Your task to perform on an android device: toggle location history Image 0: 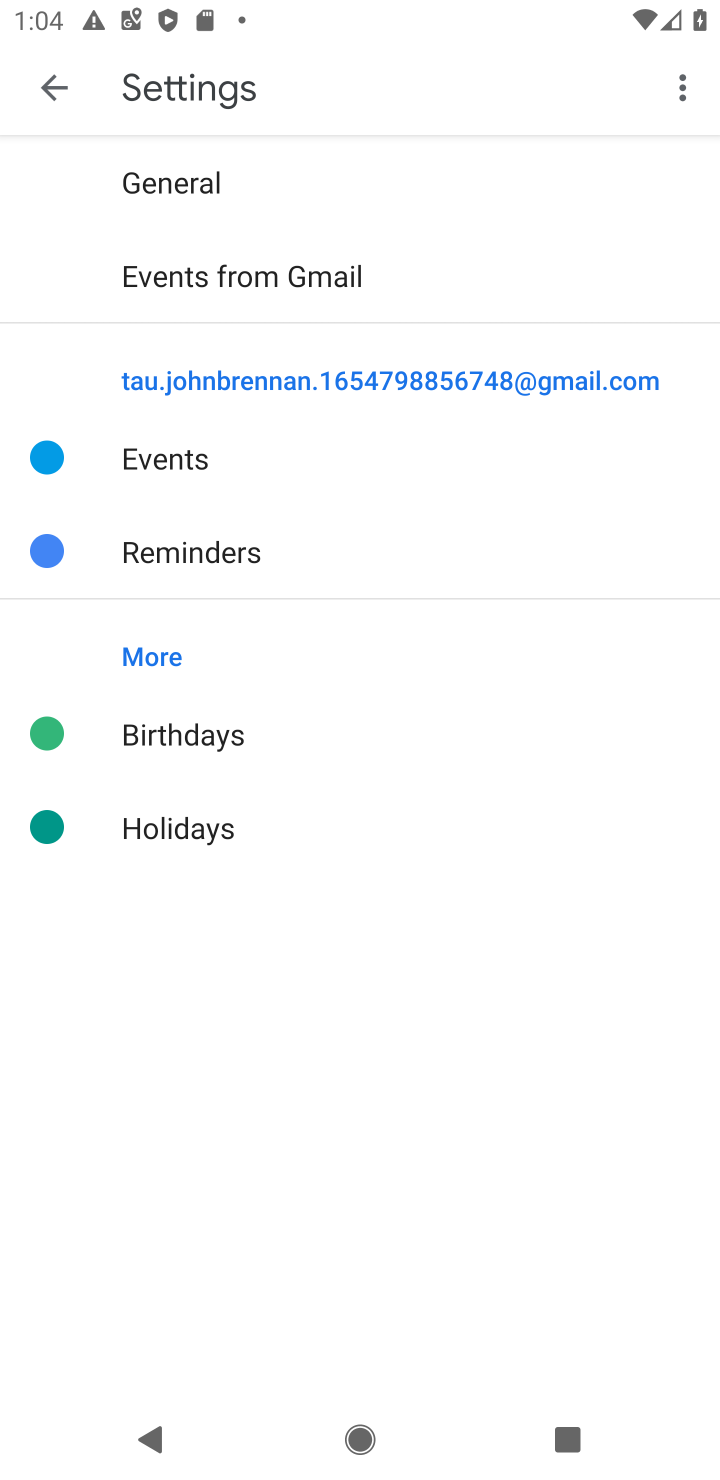
Step 0: press home button
Your task to perform on an android device: toggle location history Image 1: 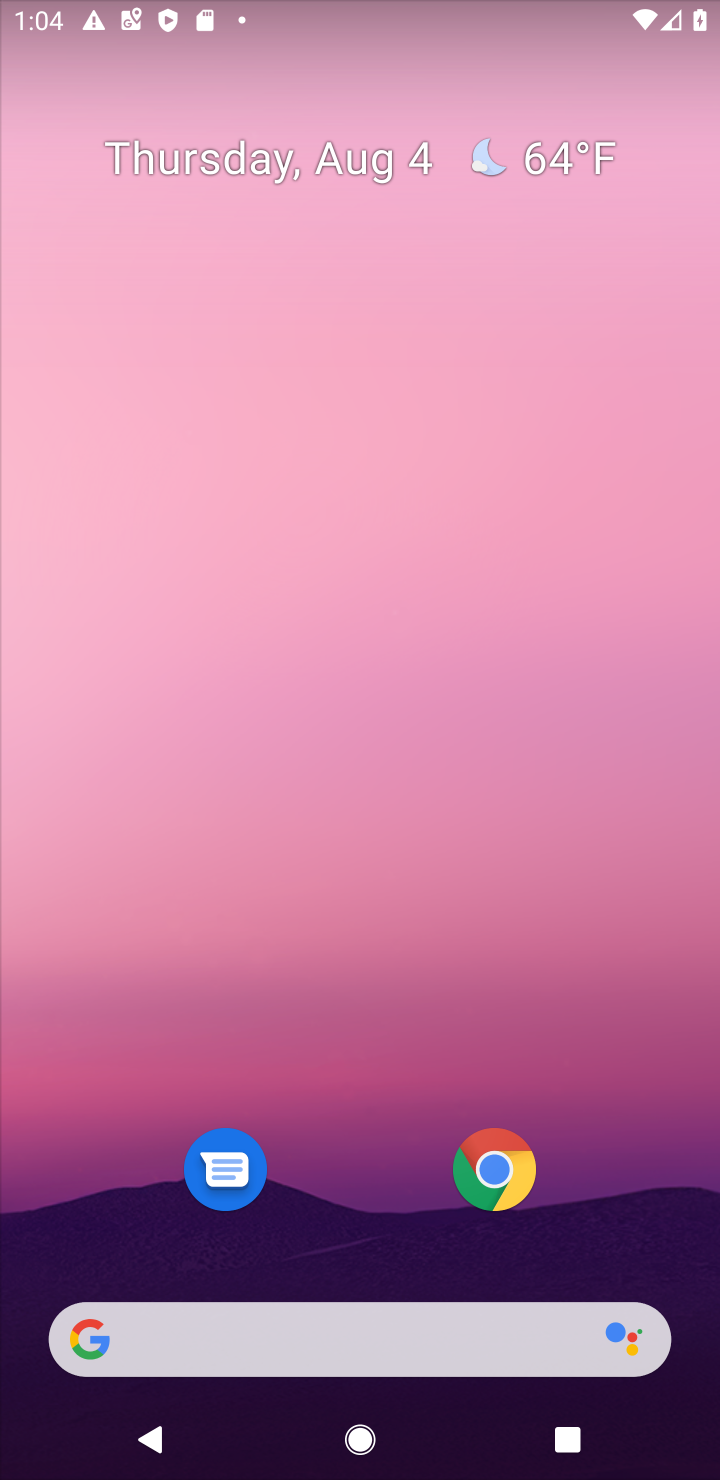
Step 1: drag from (369, 1201) to (343, 4)
Your task to perform on an android device: toggle location history Image 2: 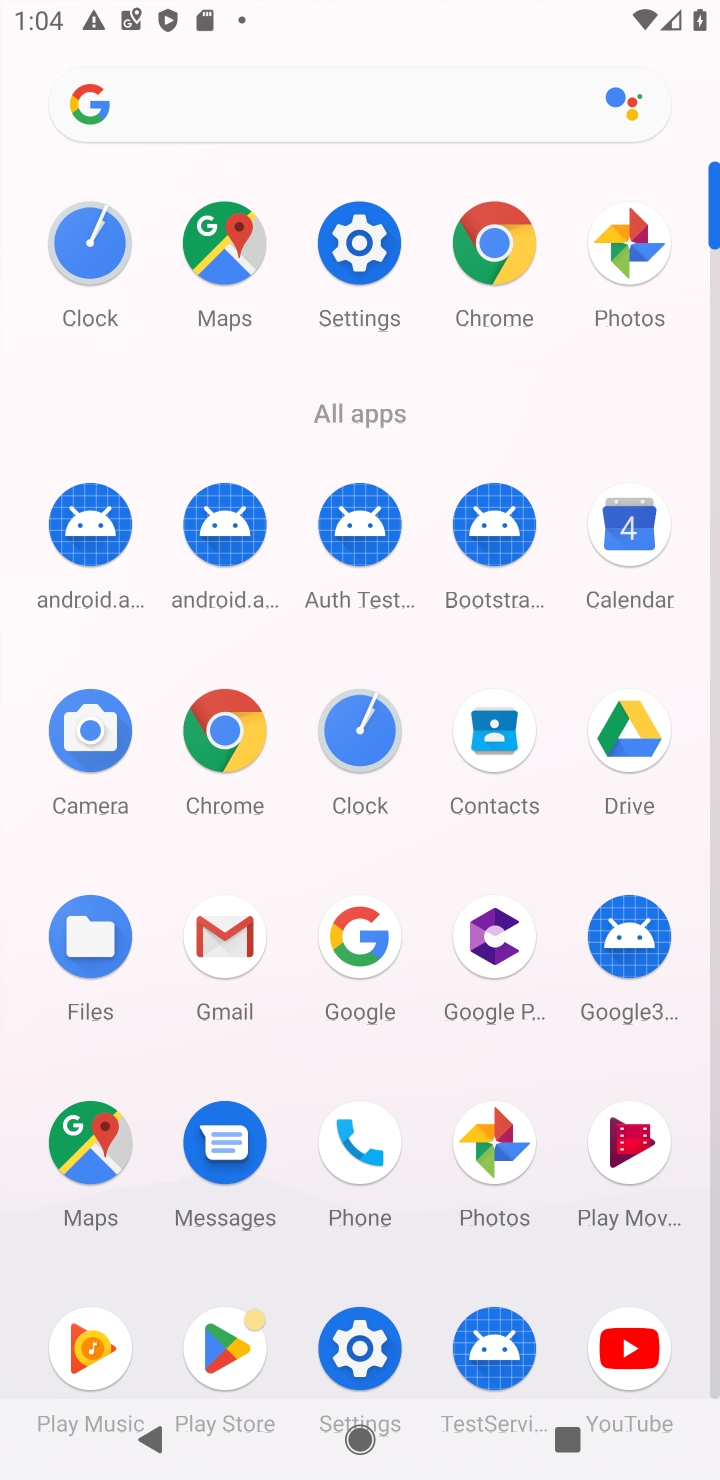
Step 2: click (346, 1353)
Your task to perform on an android device: toggle location history Image 3: 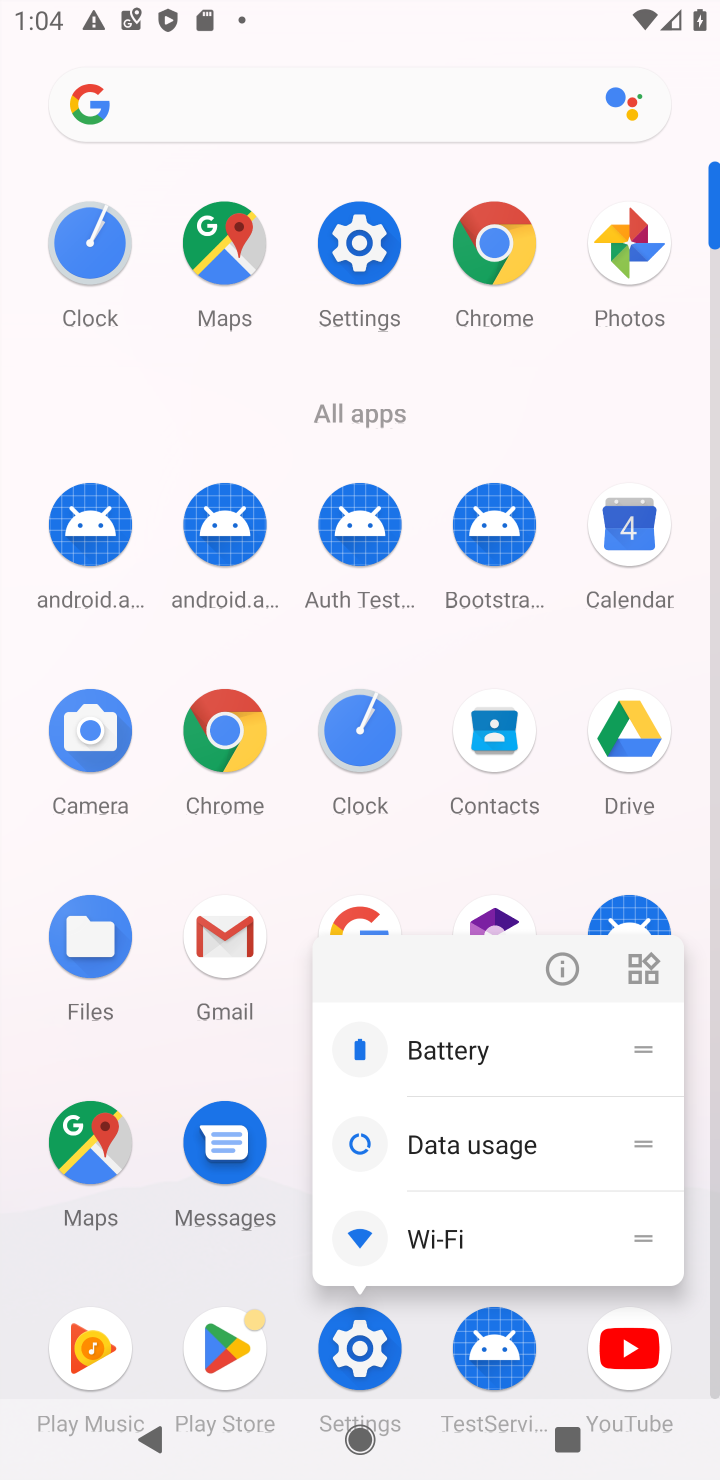
Step 3: click (340, 1321)
Your task to perform on an android device: toggle location history Image 4: 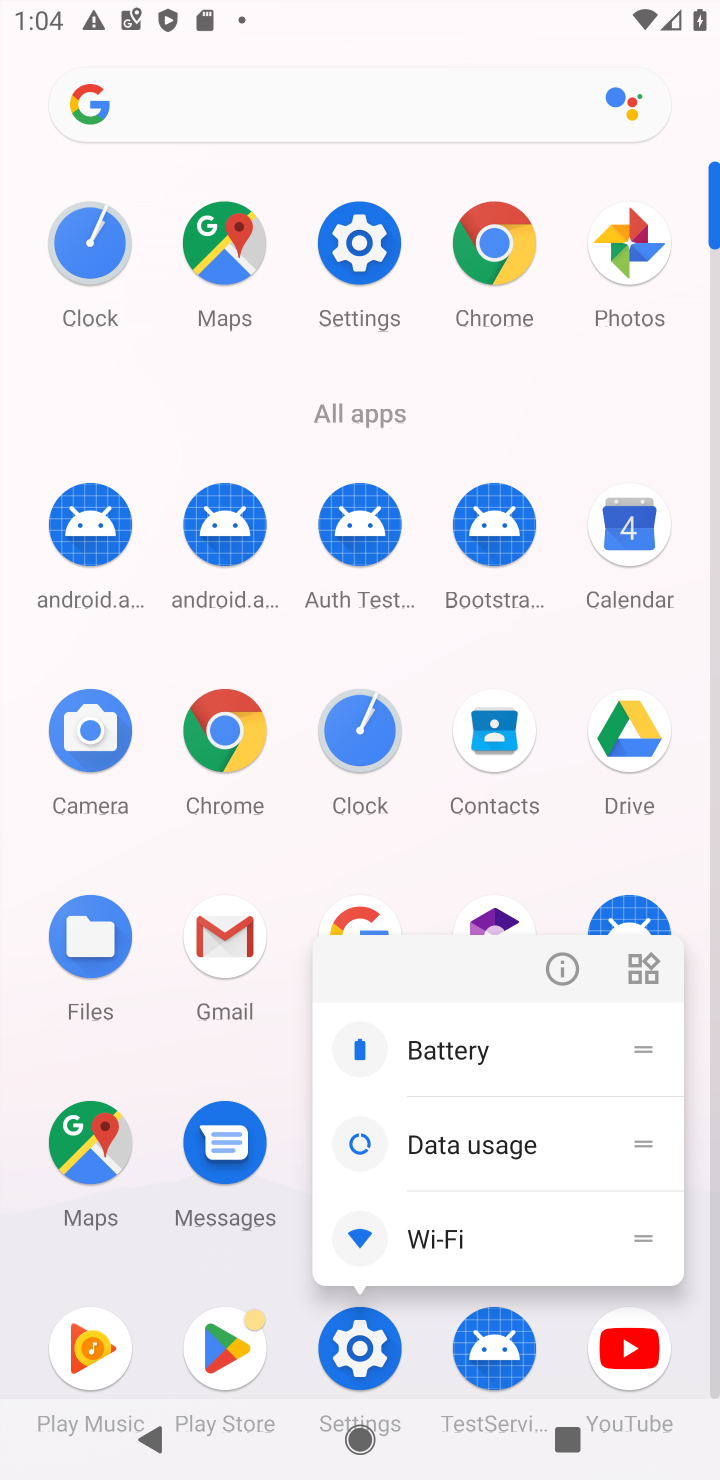
Step 4: click (344, 1346)
Your task to perform on an android device: toggle location history Image 5: 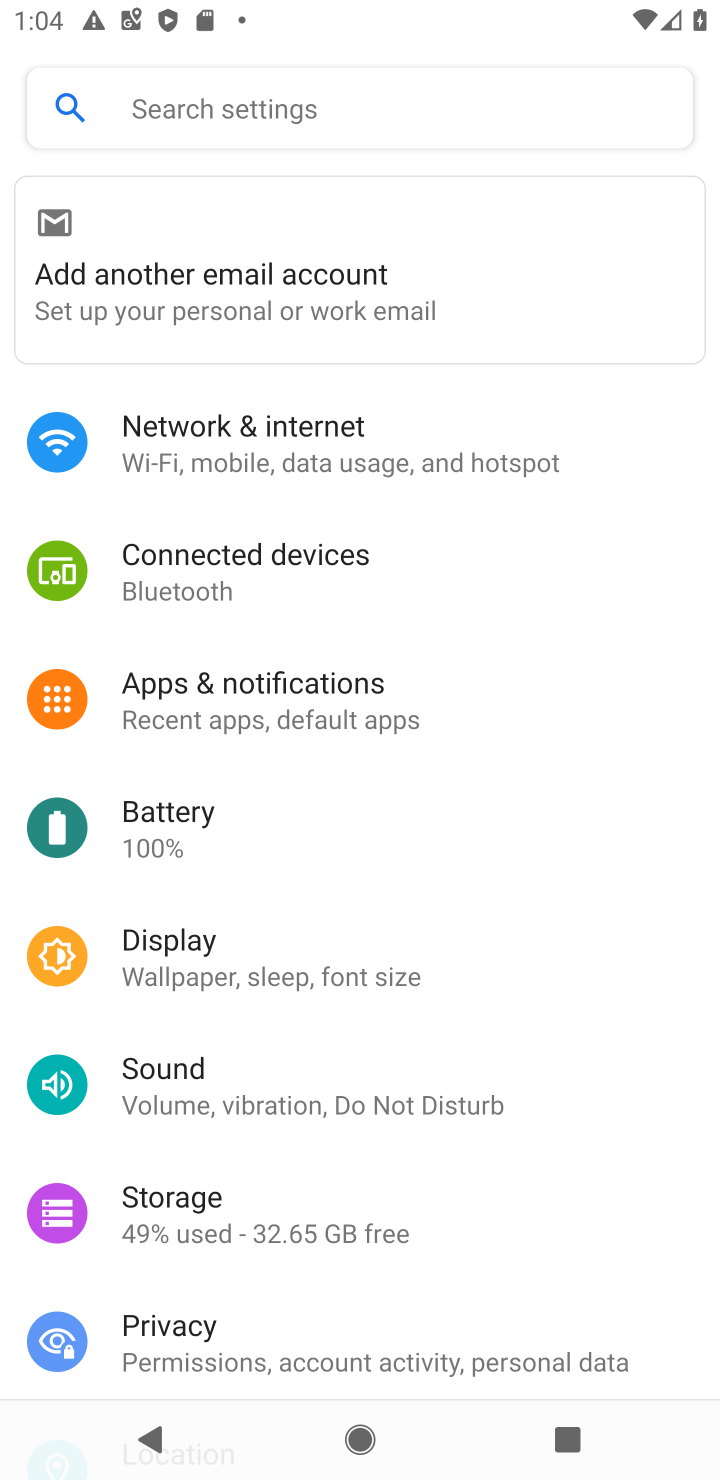
Step 5: drag from (239, 1299) to (235, 1150)
Your task to perform on an android device: toggle location history Image 6: 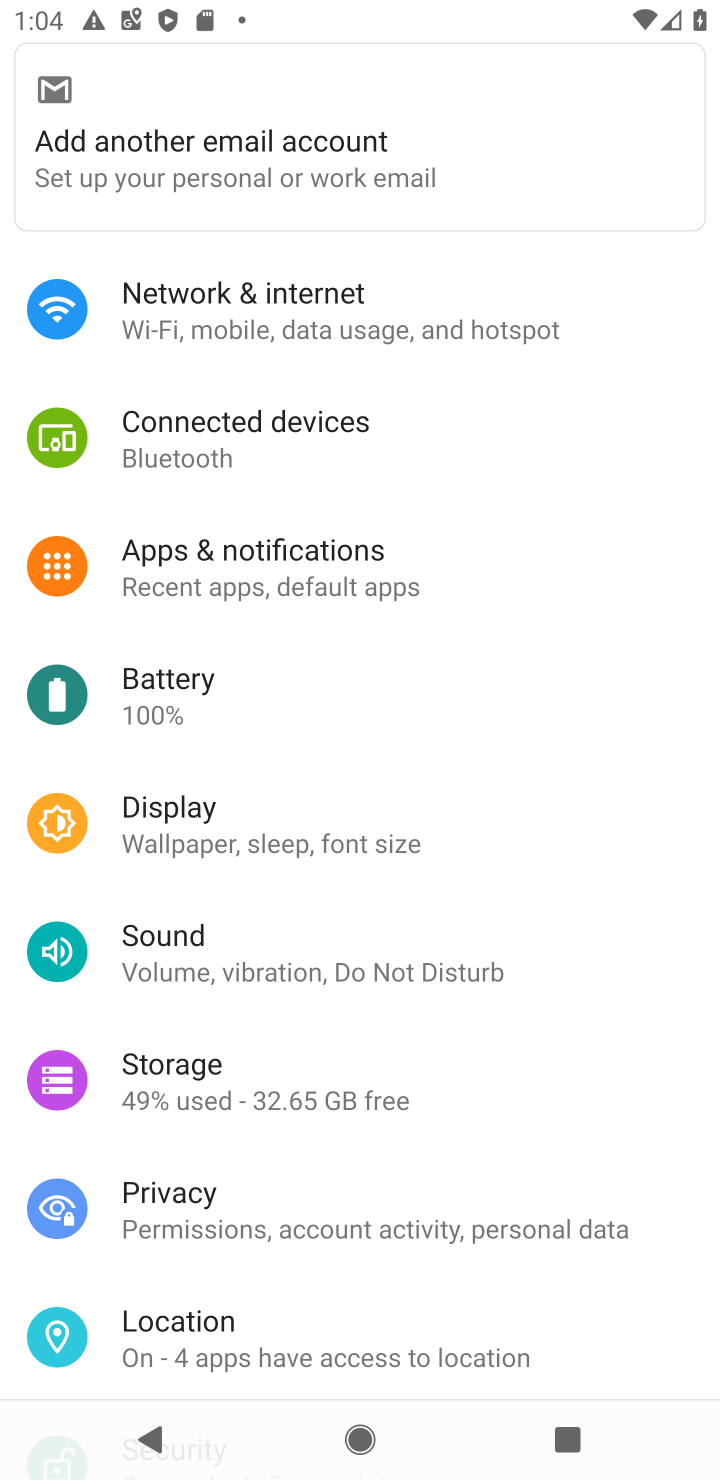
Step 6: click (190, 1322)
Your task to perform on an android device: toggle location history Image 7: 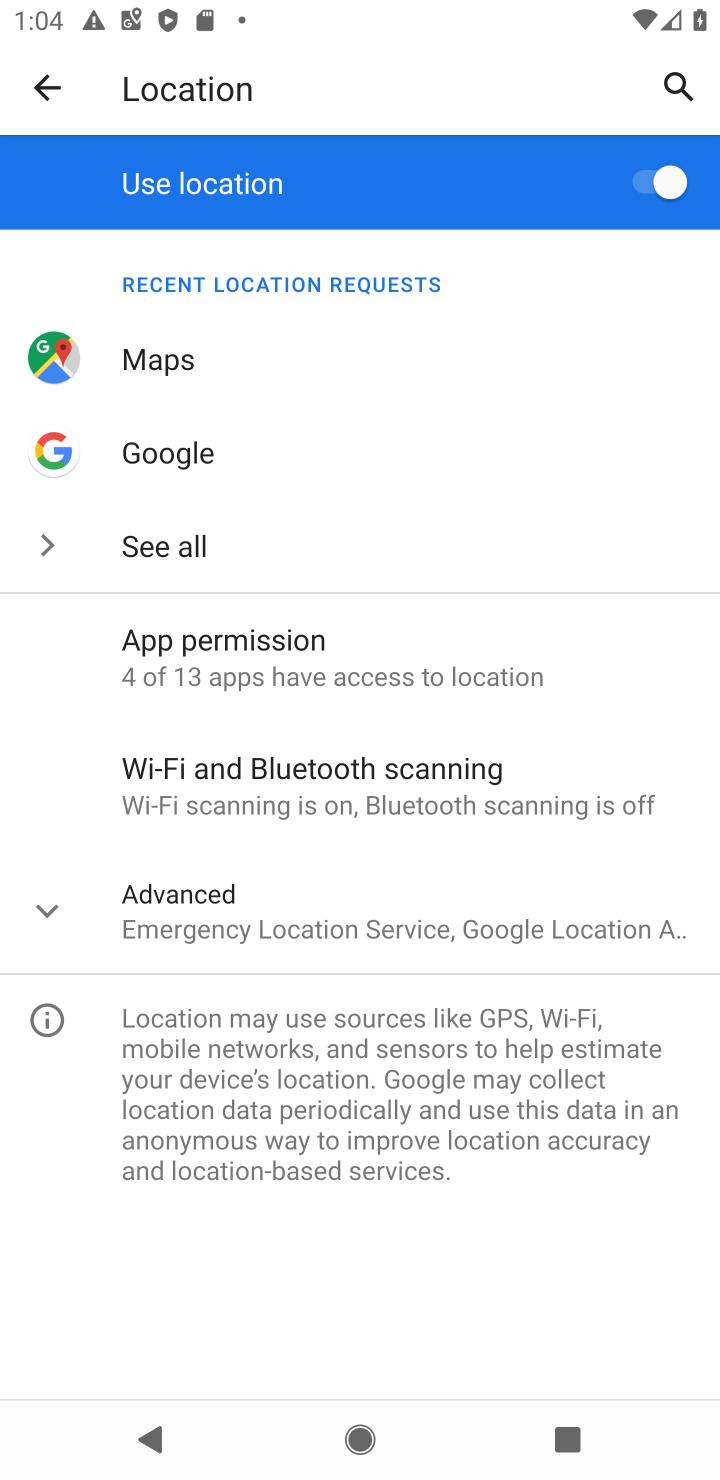
Step 7: click (269, 909)
Your task to perform on an android device: toggle location history Image 8: 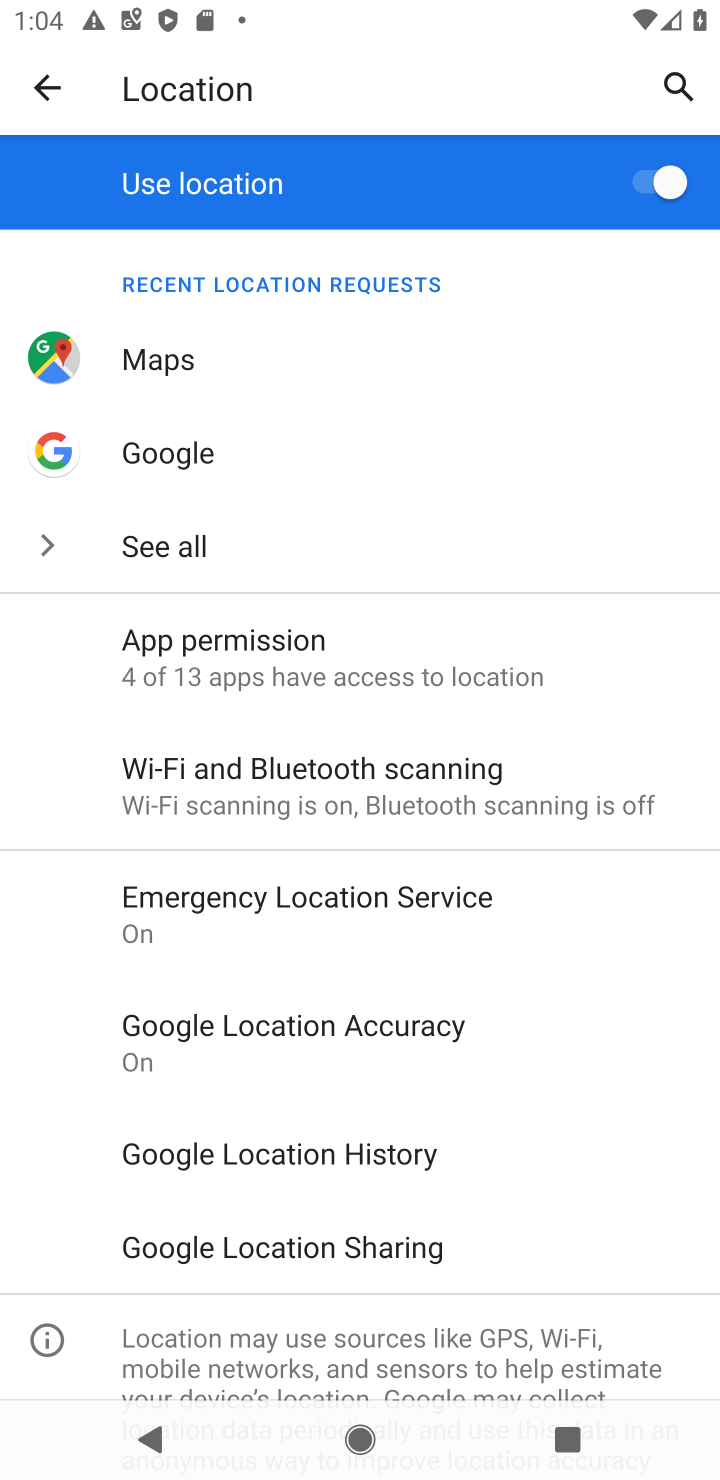
Step 8: click (298, 1140)
Your task to perform on an android device: toggle location history Image 9: 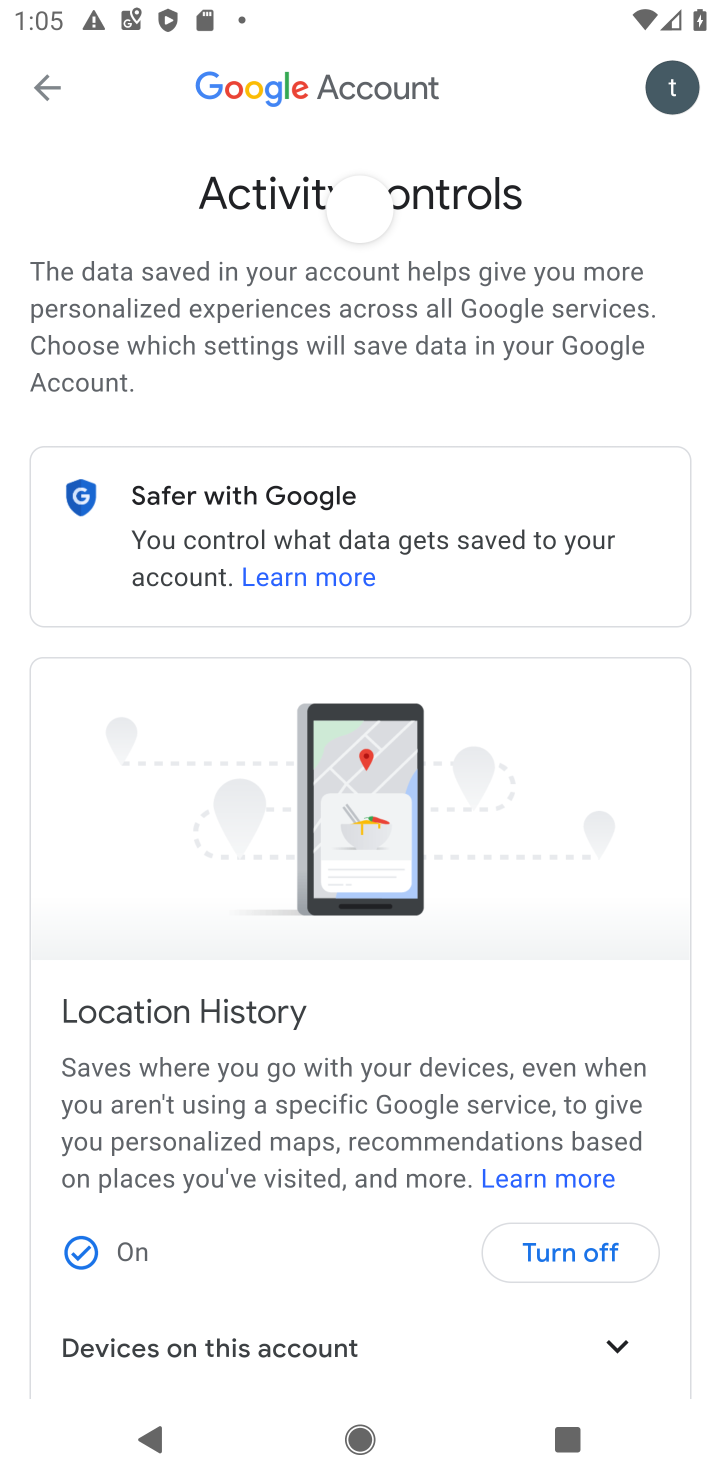
Step 9: click (574, 1260)
Your task to perform on an android device: toggle location history Image 10: 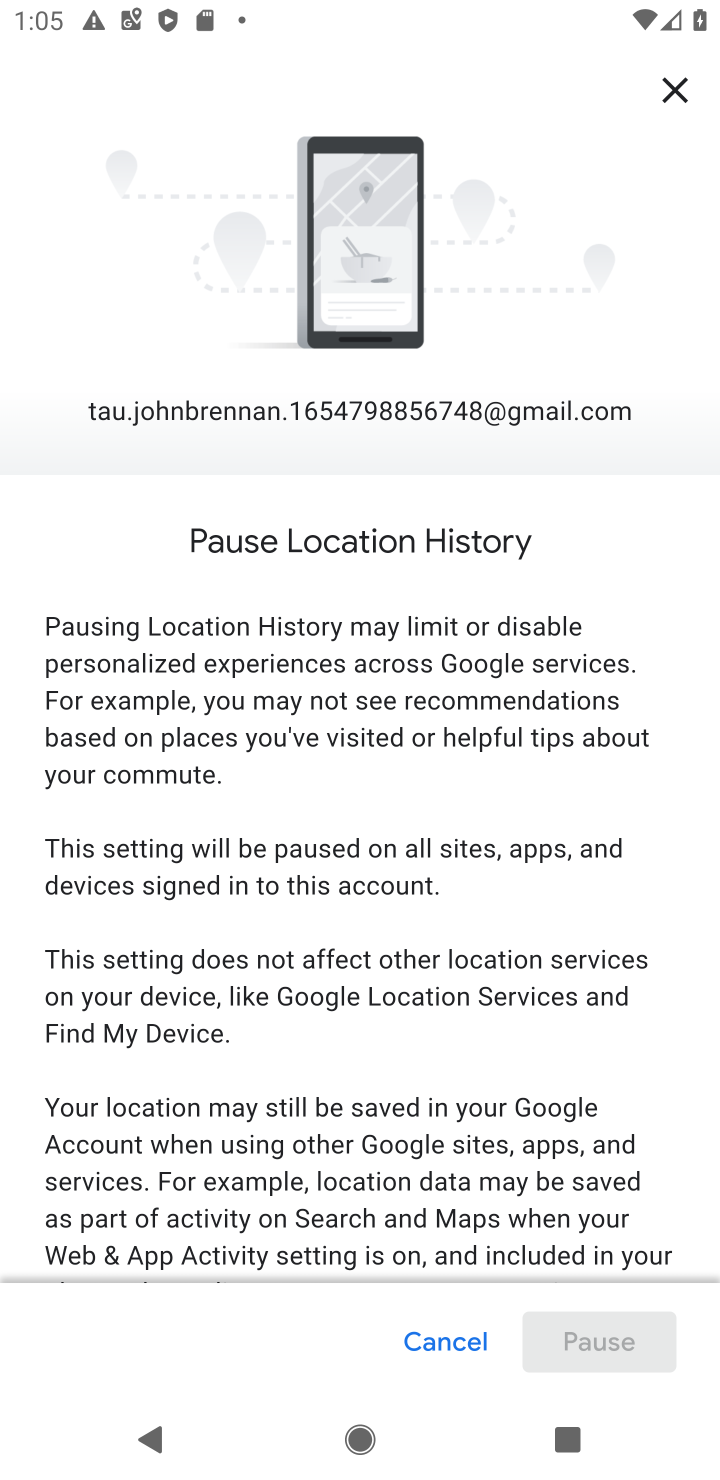
Step 10: drag from (449, 1128) to (487, 436)
Your task to perform on an android device: toggle location history Image 11: 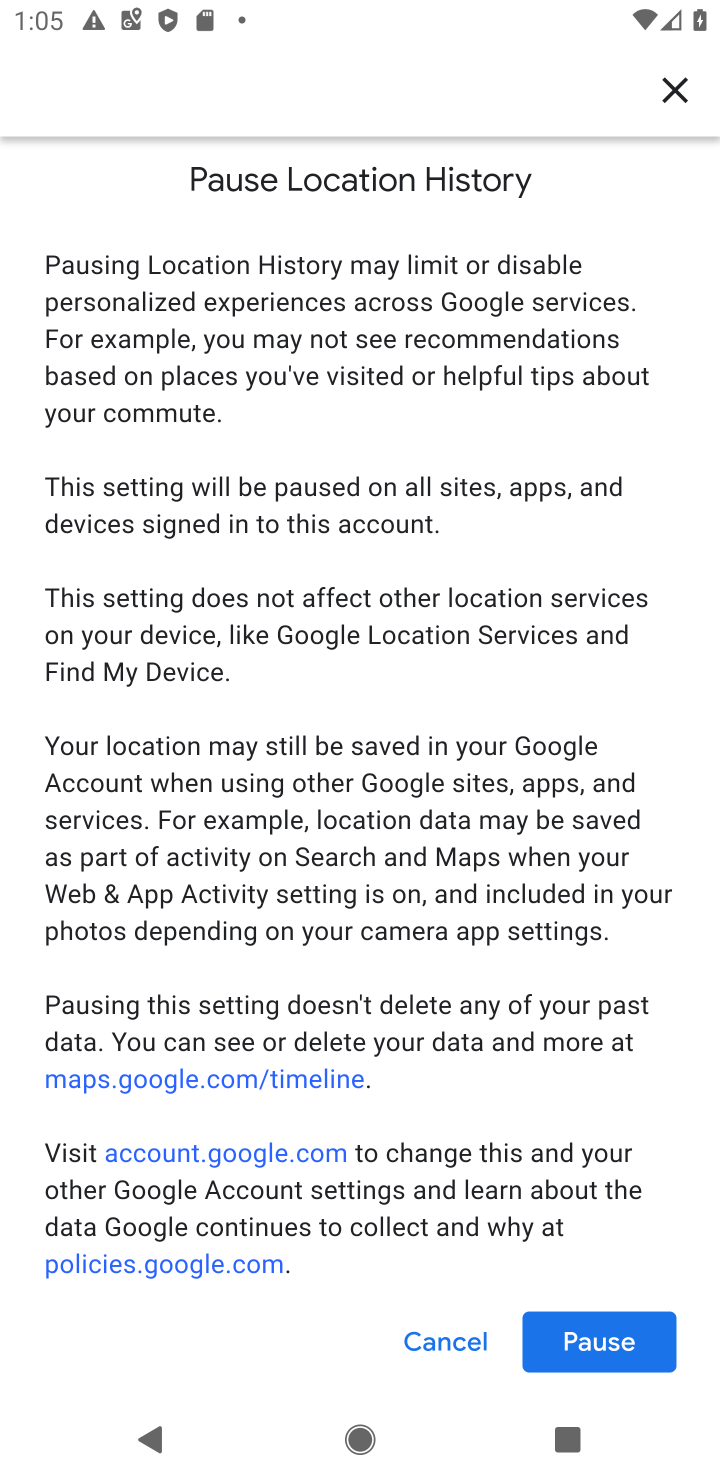
Step 11: drag from (520, 1250) to (482, 270)
Your task to perform on an android device: toggle location history Image 12: 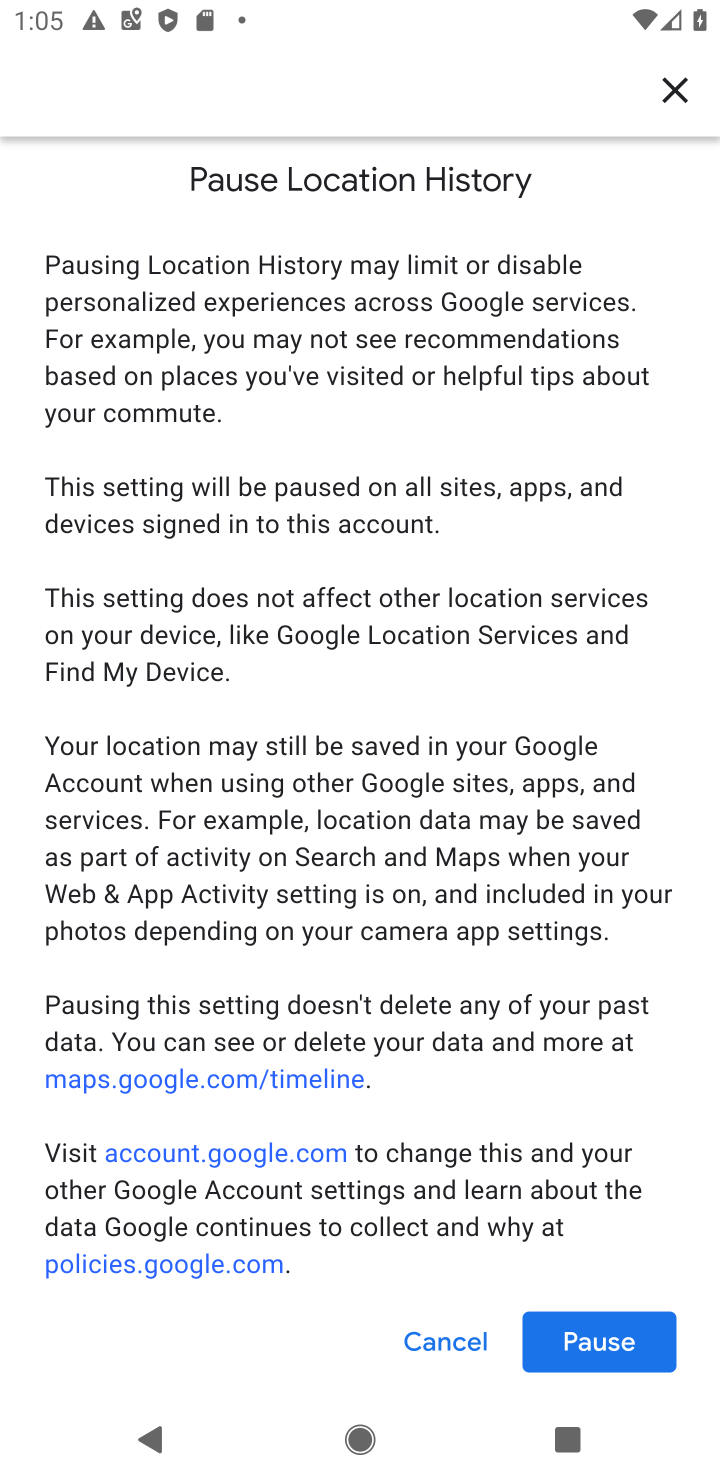
Step 12: click (594, 1339)
Your task to perform on an android device: toggle location history Image 13: 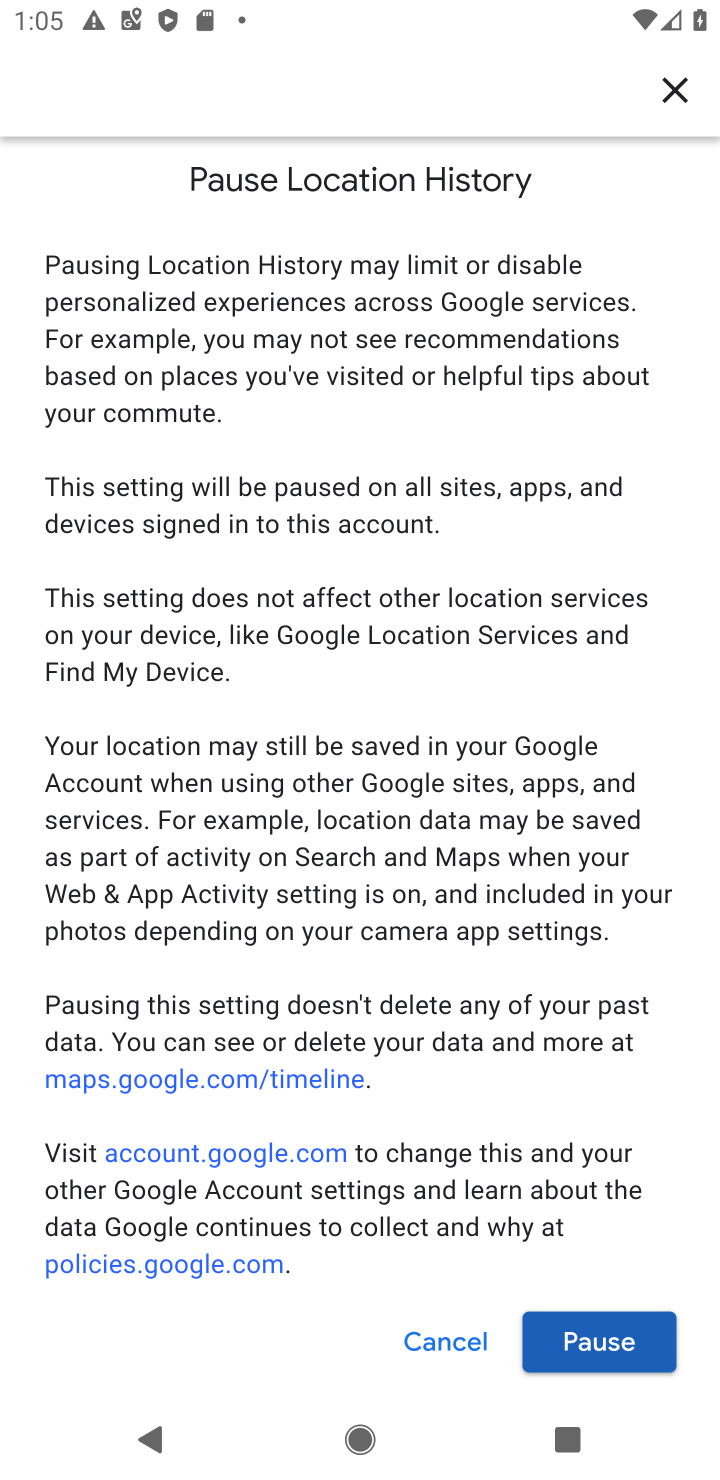
Step 13: click (595, 1342)
Your task to perform on an android device: toggle location history Image 14: 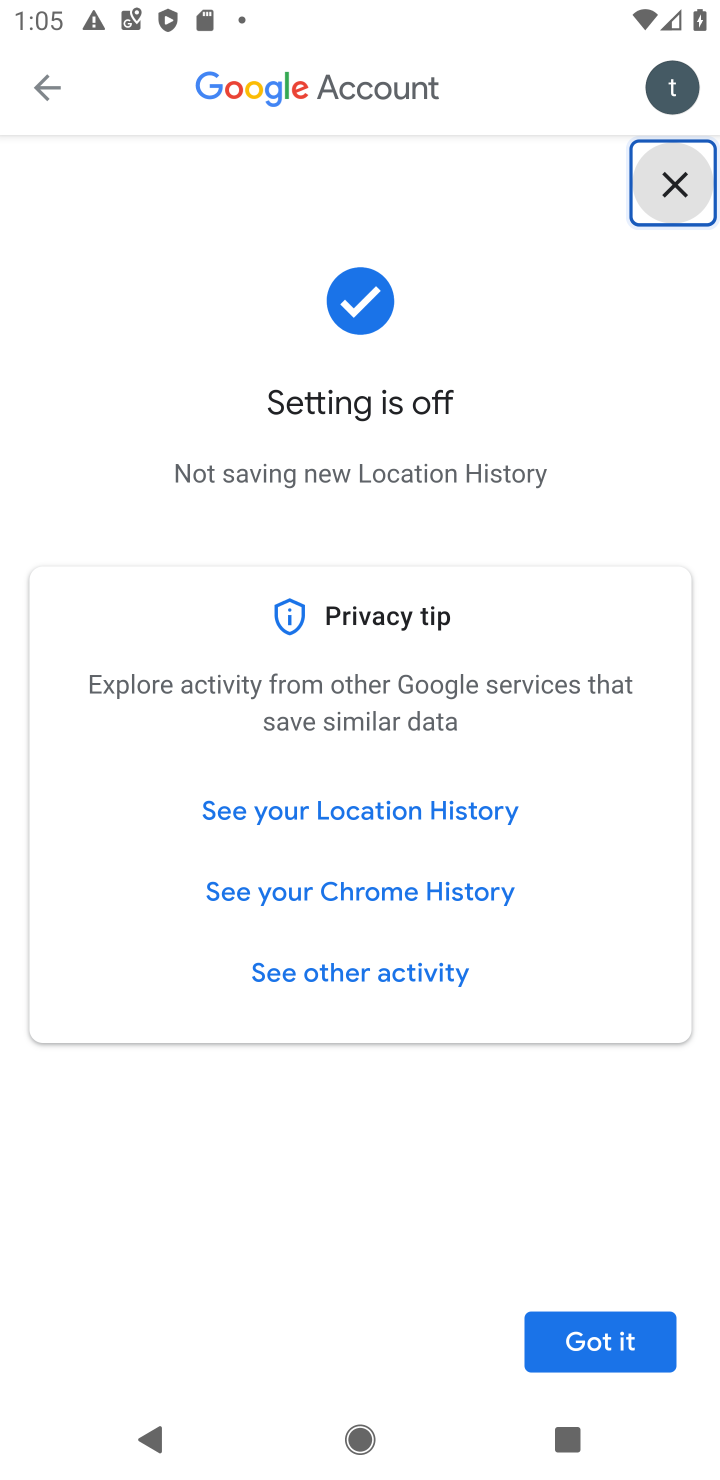
Step 14: click (595, 1342)
Your task to perform on an android device: toggle location history Image 15: 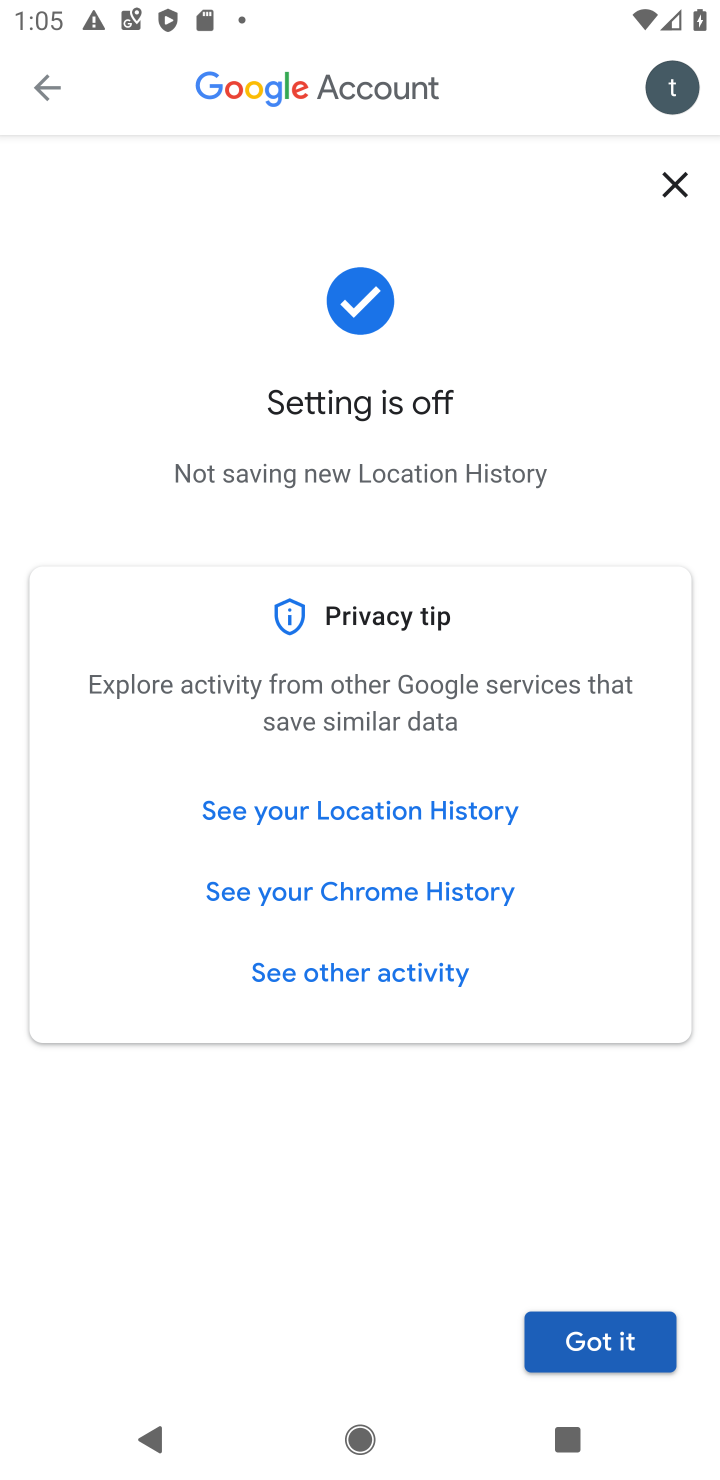
Step 15: click (595, 1342)
Your task to perform on an android device: toggle location history Image 16: 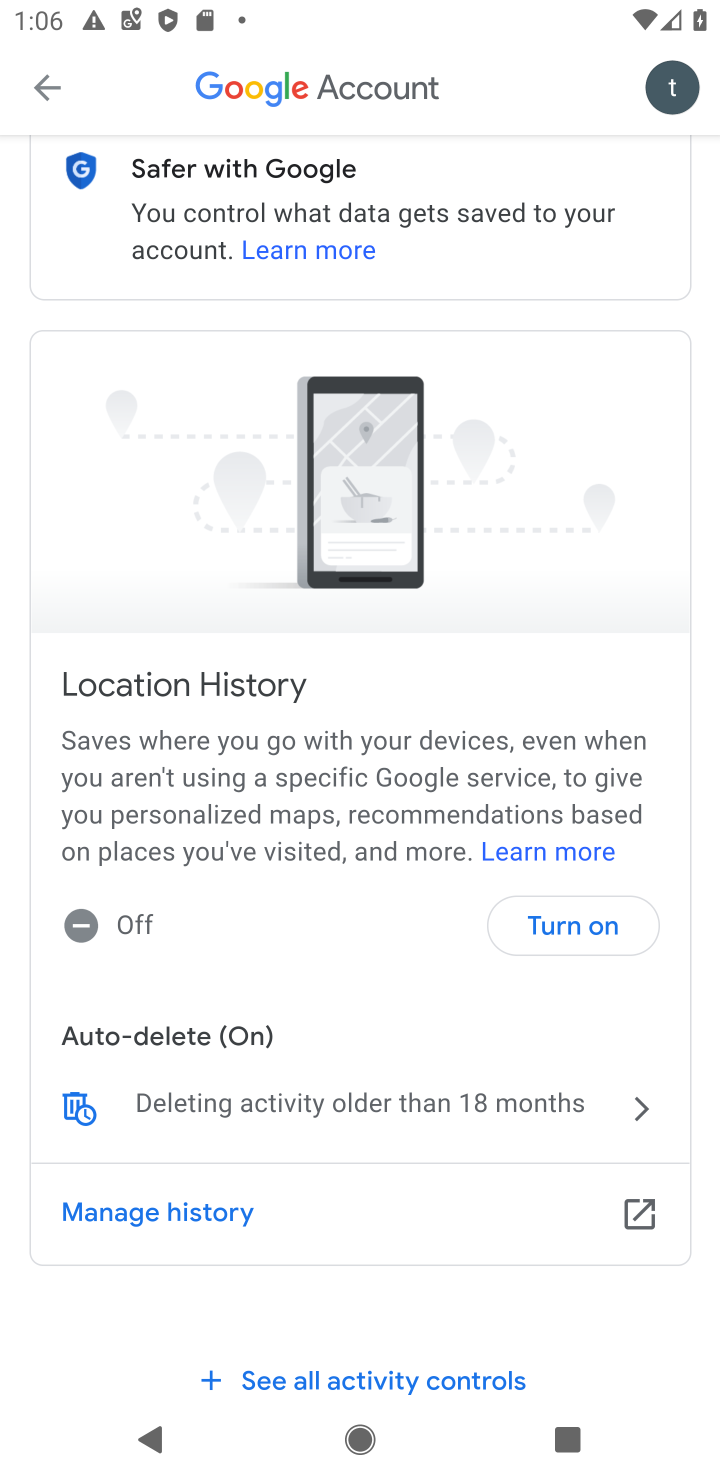
Step 16: task complete